Your task to perform on an android device: Go to Maps Image 0: 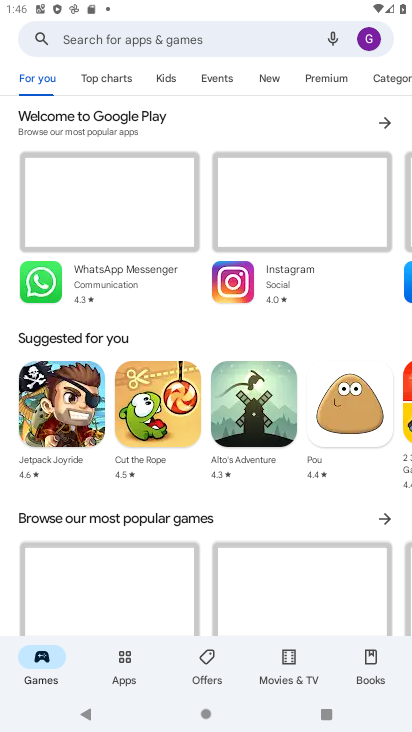
Step 0: press home button
Your task to perform on an android device: Go to Maps Image 1: 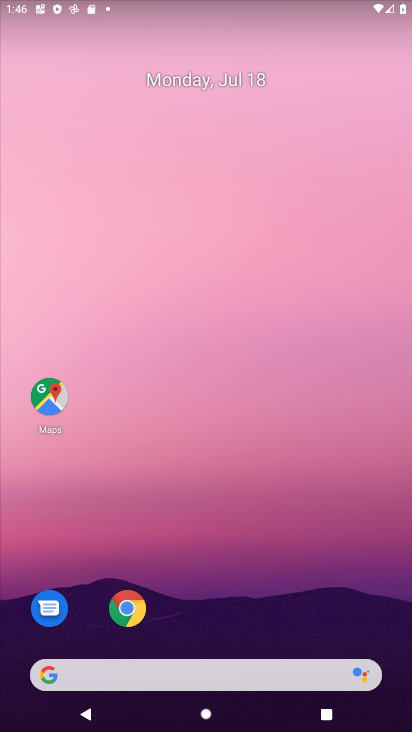
Step 1: drag from (301, 612) to (214, 31)
Your task to perform on an android device: Go to Maps Image 2: 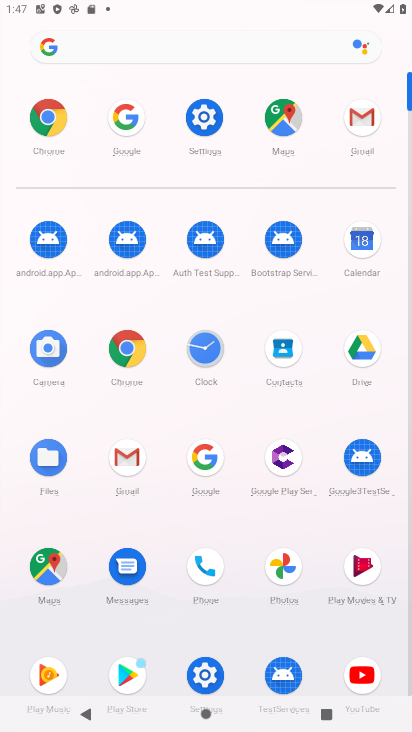
Step 2: click (29, 564)
Your task to perform on an android device: Go to Maps Image 3: 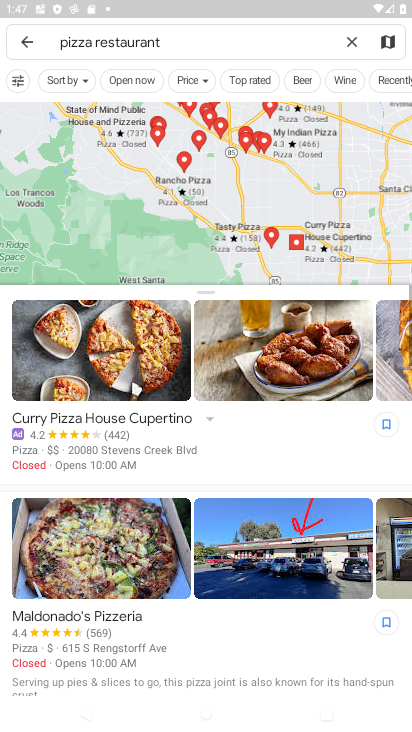
Step 3: click (352, 38)
Your task to perform on an android device: Go to Maps Image 4: 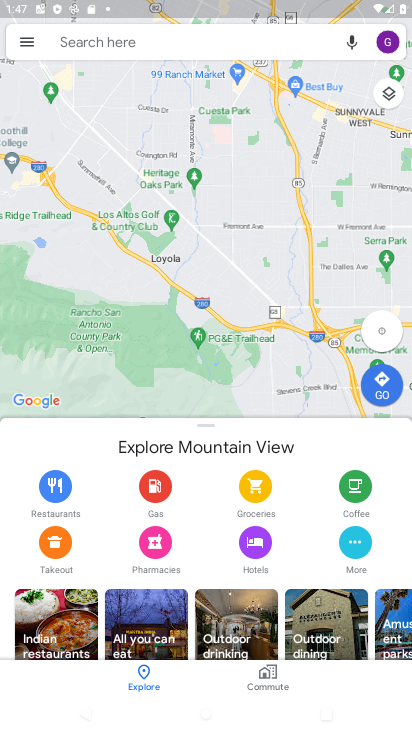
Step 4: task complete